Your task to perform on an android device: Is it going to rain this weekend? Image 0: 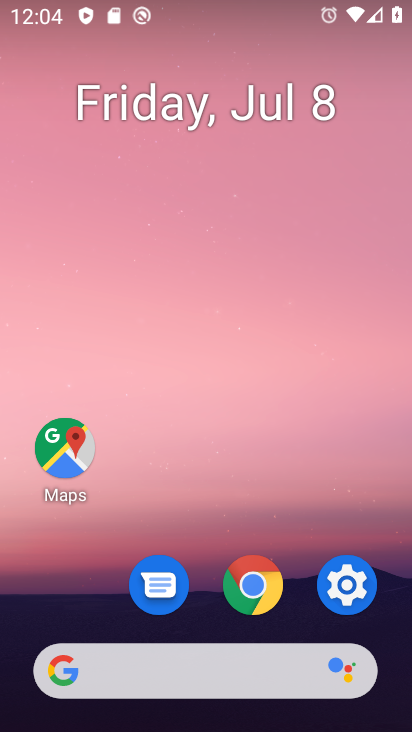
Step 0: click (187, 668)
Your task to perform on an android device: Is it going to rain this weekend? Image 1: 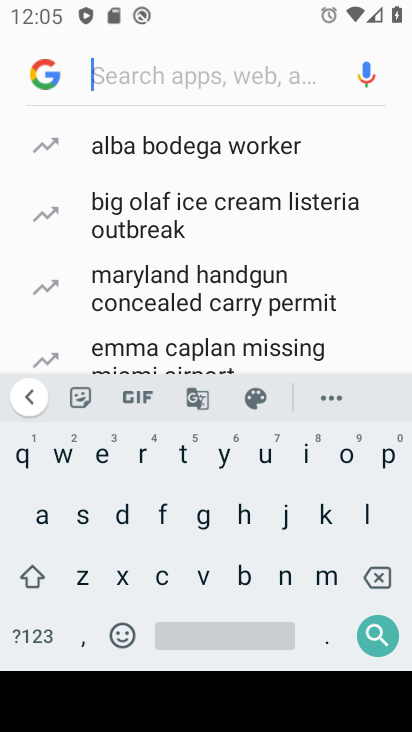
Step 1: click (138, 456)
Your task to perform on an android device: Is it going to rain this weekend? Image 2: 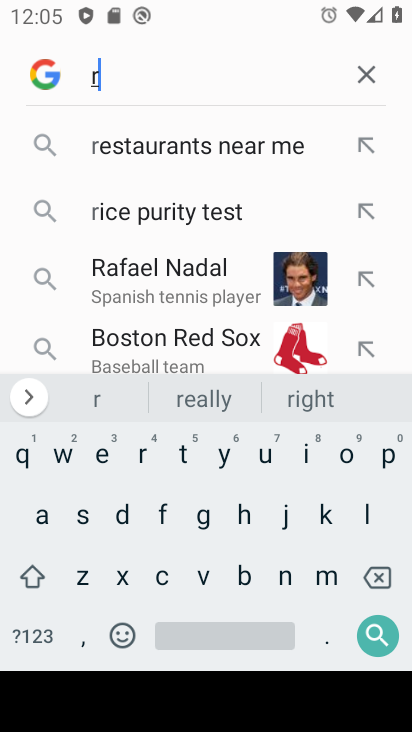
Step 2: click (39, 503)
Your task to perform on an android device: Is it going to rain this weekend? Image 3: 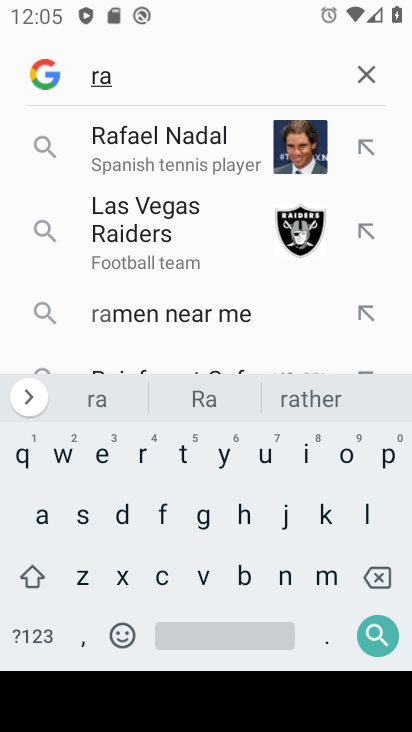
Step 3: click (309, 447)
Your task to perform on an android device: Is it going to rain this weekend? Image 4: 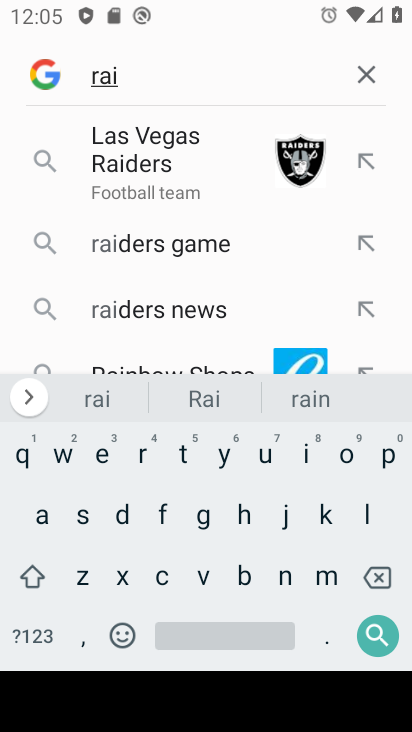
Step 4: click (318, 406)
Your task to perform on an android device: Is it going to rain this weekend? Image 5: 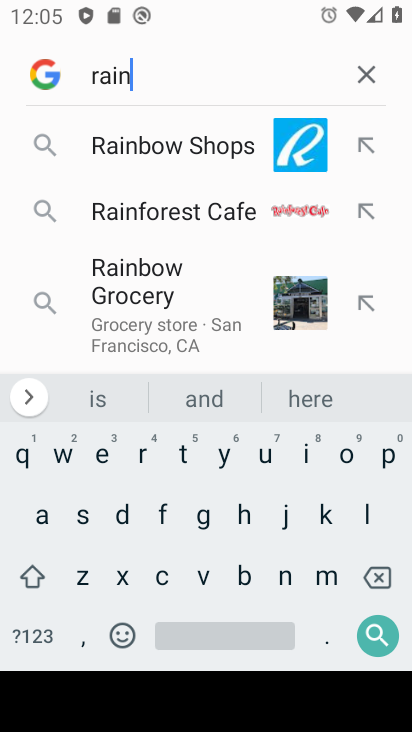
Step 5: click (66, 461)
Your task to perform on an android device: Is it going to rain this weekend? Image 6: 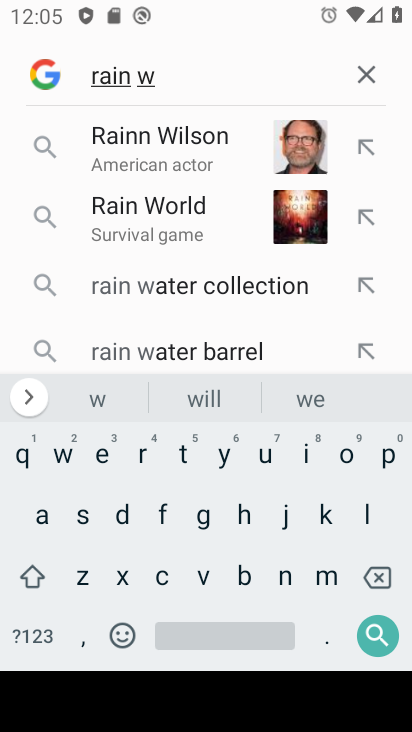
Step 6: click (98, 451)
Your task to perform on an android device: Is it going to rain this weekend? Image 7: 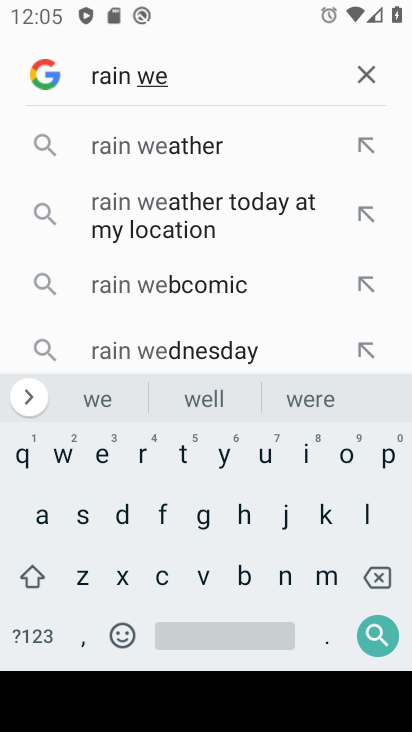
Step 7: click (95, 454)
Your task to perform on an android device: Is it going to rain this weekend? Image 8: 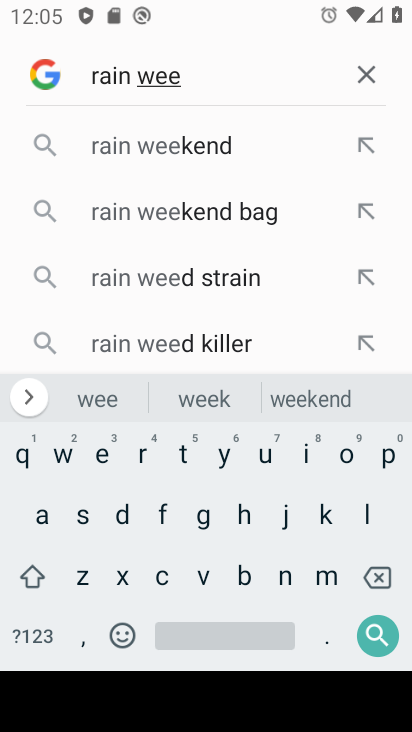
Step 8: click (241, 131)
Your task to perform on an android device: Is it going to rain this weekend? Image 9: 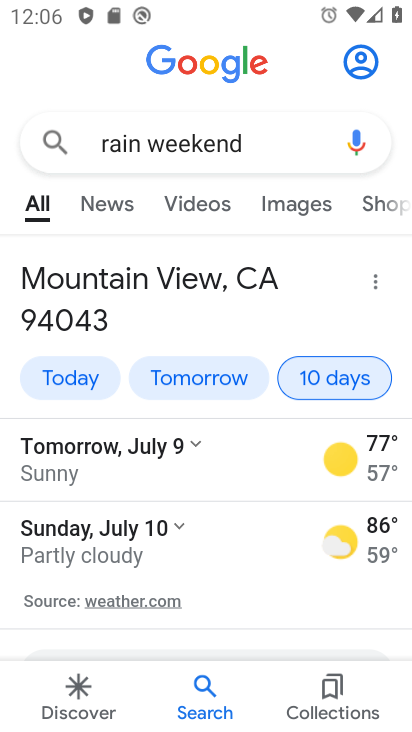
Step 9: task complete